Your task to perform on an android device: Open eBay Image 0: 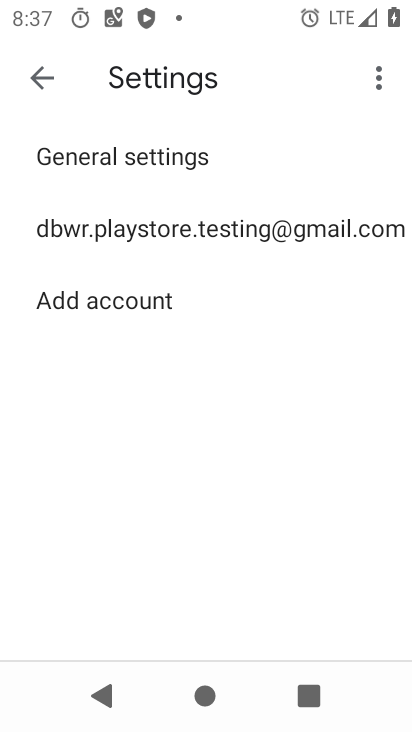
Step 0: press home button
Your task to perform on an android device: Open eBay Image 1: 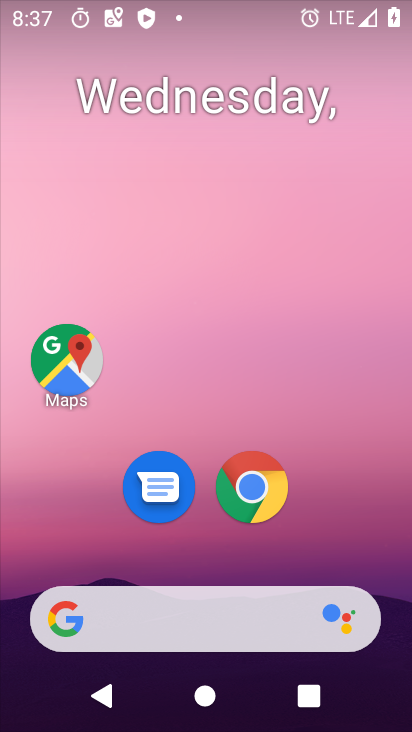
Step 1: click (257, 491)
Your task to perform on an android device: Open eBay Image 2: 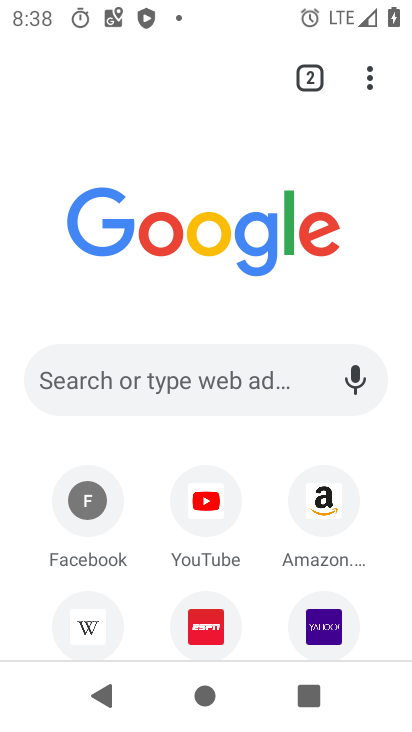
Step 2: drag from (395, 567) to (390, 468)
Your task to perform on an android device: Open eBay Image 3: 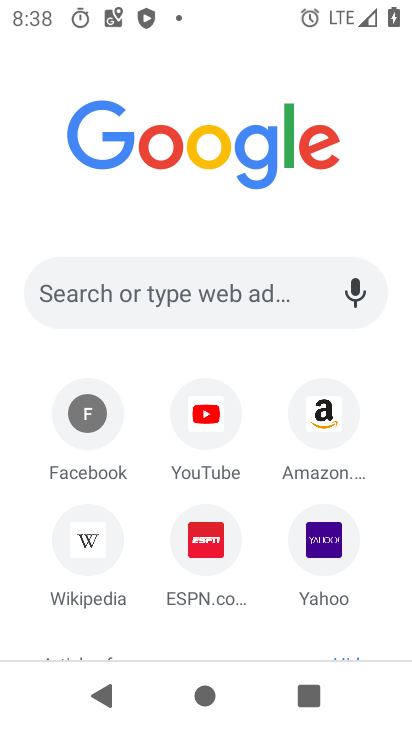
Step 3: click (69, 290)
Your task to perform on an android device: Open eBay Image 4: 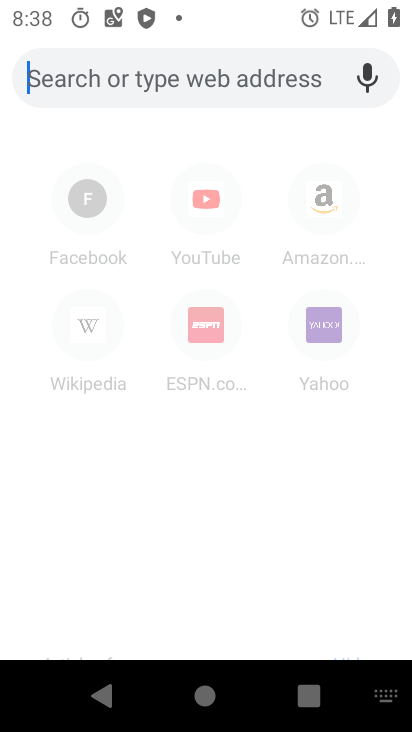
Step 4: type "ebay"
Your task to perform on an android device: Open eBay Image 5: 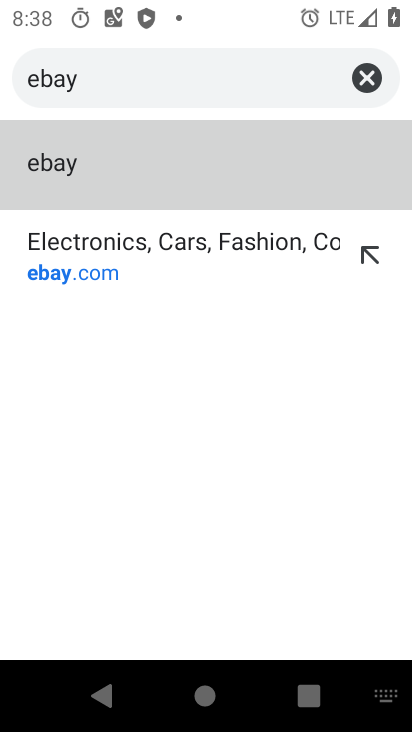
Step 5: click (49, 266)
Your task to perform on an android device: Open eBay Image 6: 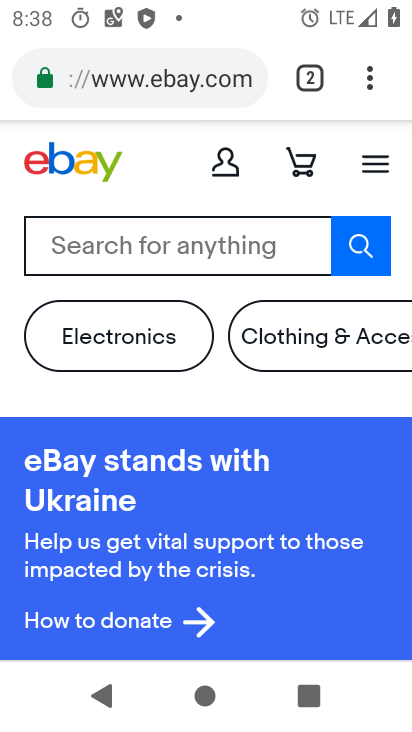
Step 6: task complete